Your task to perform on an android device: open app "Microsoft Outlook" (install if not already installed) and enter user name: "brand@gmail.com" and password: "persuasiveness" Image 0: 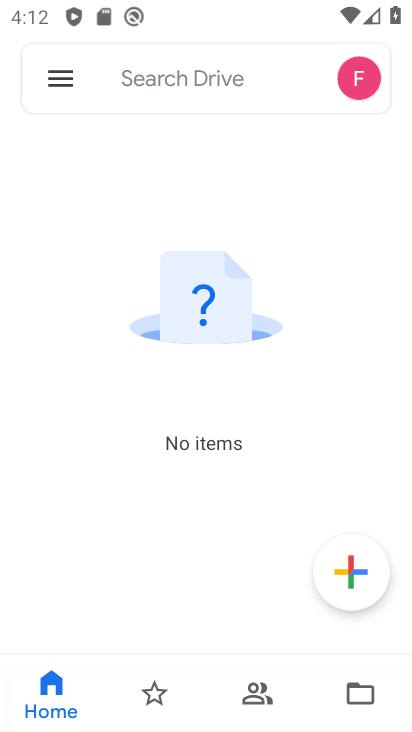
Step 0: press home button
Your task to perform on an android device: open app "Microsoft Outlook" (install if not already installed) and enter user name: "brand@gmail.com" and password: "persuasiveness" Image 1: 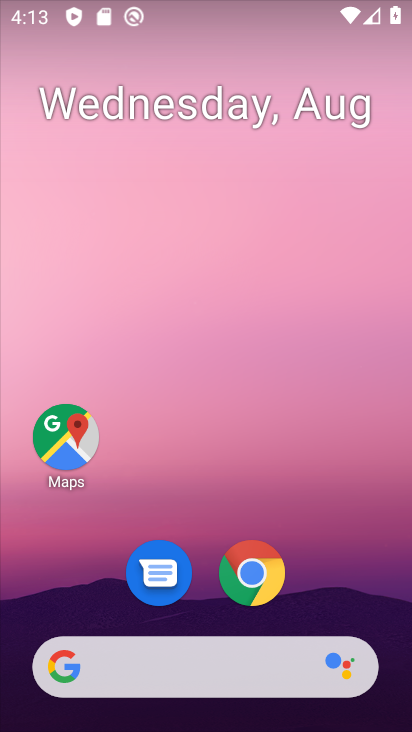
Step 1: drag from (182, 503) to (198, 65)
Your task to perform on an android device: open app "Microsoft Outlook" (install if not already installed) and enter user name: "brand@gmail.com" and password: "persuasiveness" Image 2: 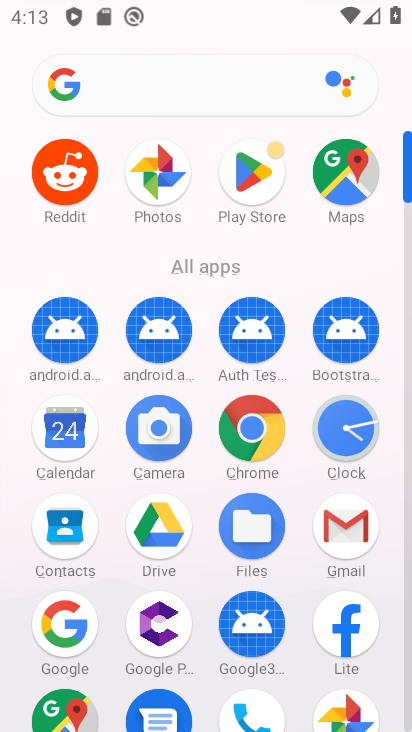
Step 2: click (249, 164)
Your task to perform on an android device: open app "Microsoft Outlook" (install if not already installed) and enter user name: "brand@gmail.com" and password: "persuasiveness" Image 3: 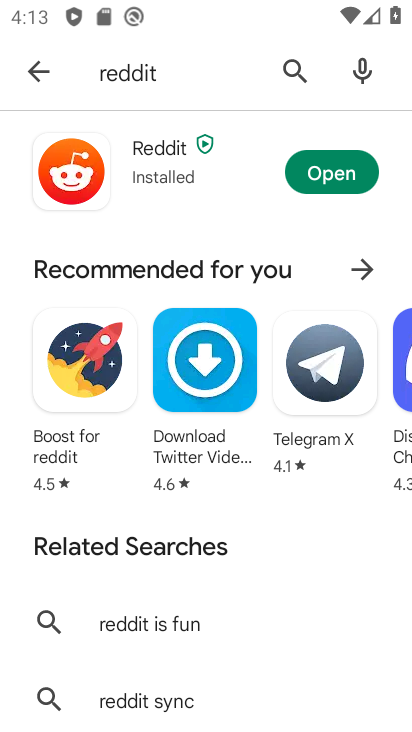
Step 3: click (283, 71)
Your task to perform on an android device: open app "Microsoft Outlook" (install if not already installed) and enter user name: "brand@gmail.com" and password: "persuasiveness" Image 4: 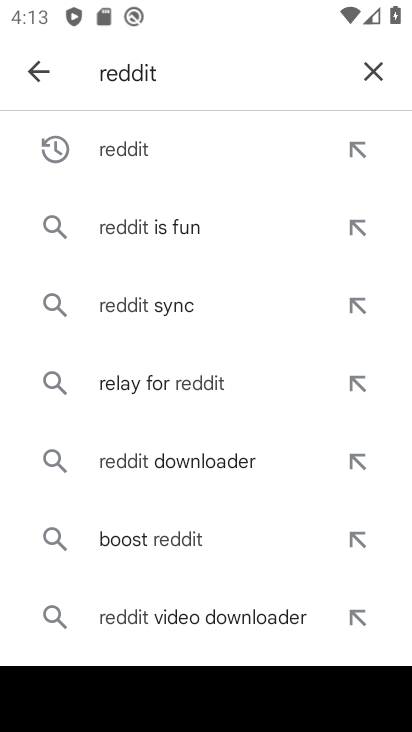
Step 4: click (373, 71)
Your task to perform on an android device: open app "Microsoft Outlook" (install if not already installed) and enter user name: "brand@gmail.com" and password: "persuasiveness" Image 5: 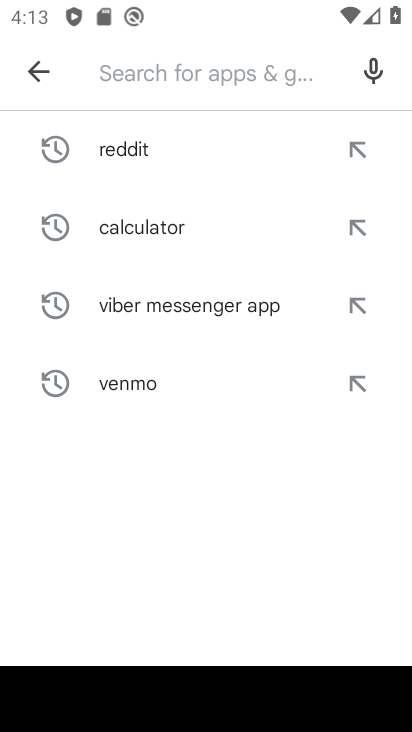
Step 5: type "Microsoft Outloo"
Your task to perform on an android device: open app "Microsoft Outlook" (install if not already installed) and enter user name: "brand@gmail.com" and password: "persuasiveness" Image 6: 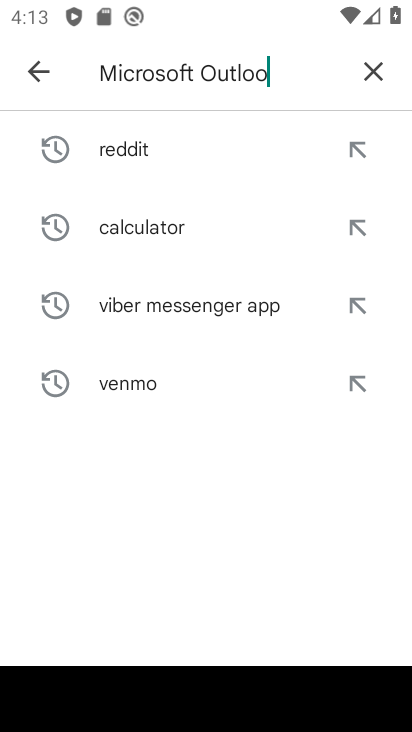
Step 6: type ""
Your task to perform on an android device: open app "Microsoft Outlook" (install if not already installed) and enter user name: "brand@gmail.com" and password: "persuasiveness" Image 7: 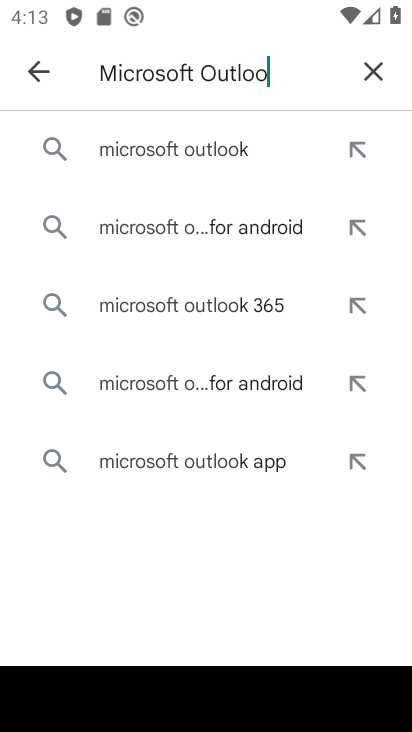
Step 7: click (208, 146)
Your task to perform on an android device: open app "Microsoft Outlook" (install if not already installed) and enter user name: "brand@gmail.com" and password: "persuasiveness" Image 8: 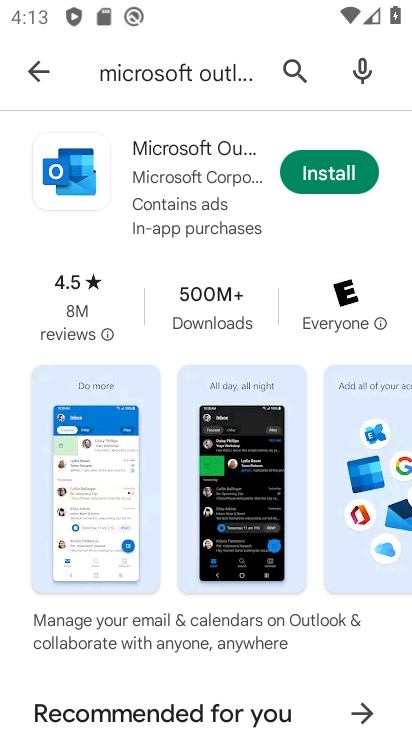
Step 8: click (339, 167)
Your task to perform on an android device: open app "Microsoft Outlook" (install if not already installed) and enter user name: "brand@gmail.com" and password: "persuasiveness" Image 9: 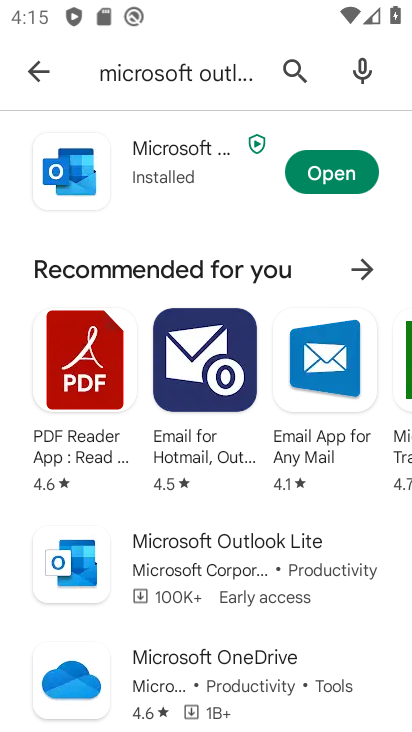
Step 9: click (299, 168)
Your task to perform on an android device: open app "Microsoft Outlook" (install if not already installed) and enter user name: "brand@gmail.com" and password: "persuasiveness" Image 10: 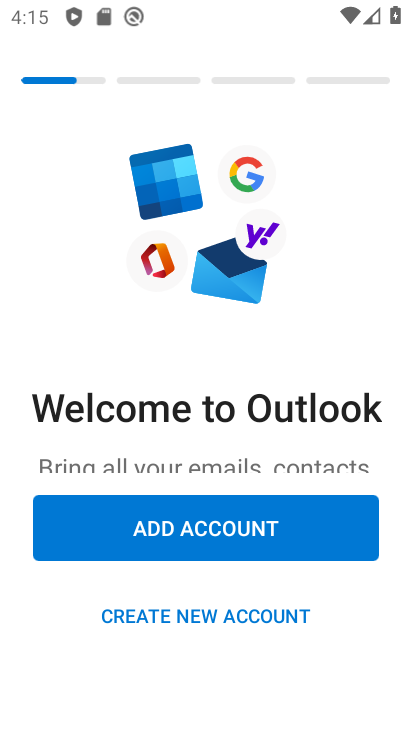
Step 10: task complete